Your task to perform on an android device: change the clock display to digital Image 0: 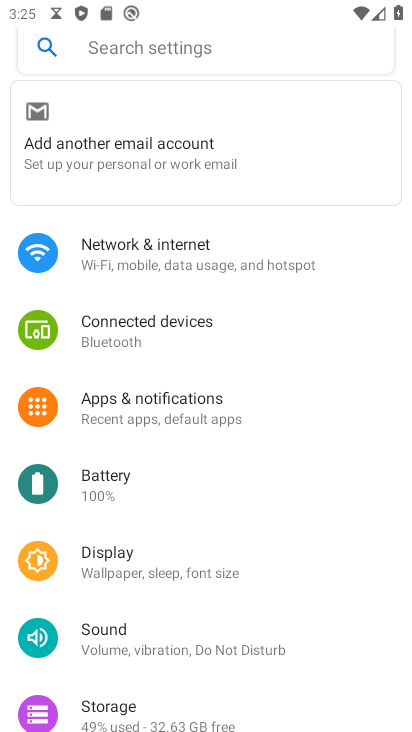
Step 0: press home button
Your task to perform on an android device: change the clock display to digital Image 1: 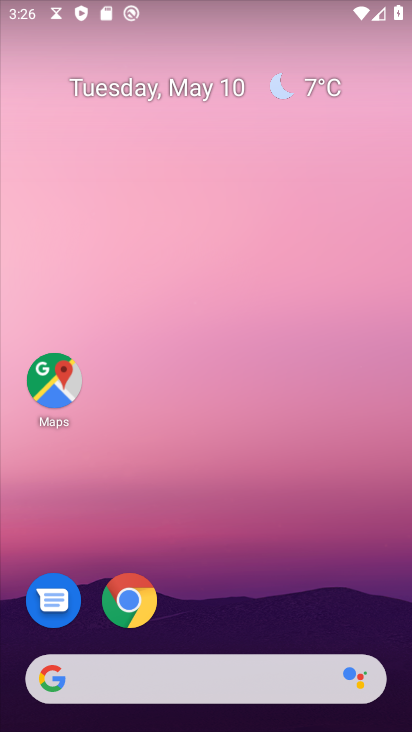
Step 1: click (22, 14)
Your task to perform on an android device: change the clock display to digital Image 2: 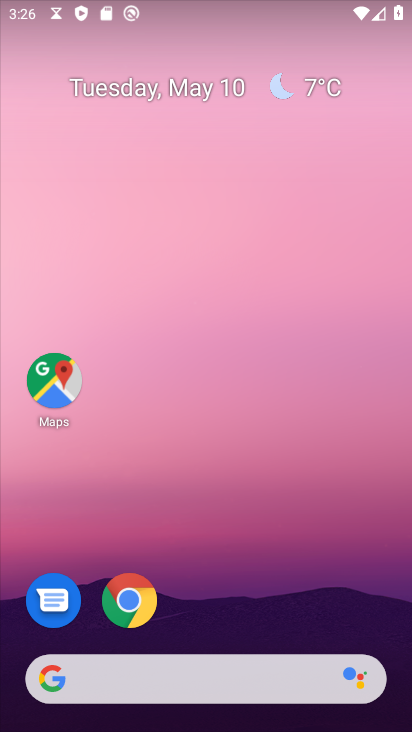
Step 2: click (48, 9)
Your task to perform on an android device: change the clock display to digital Image 3: 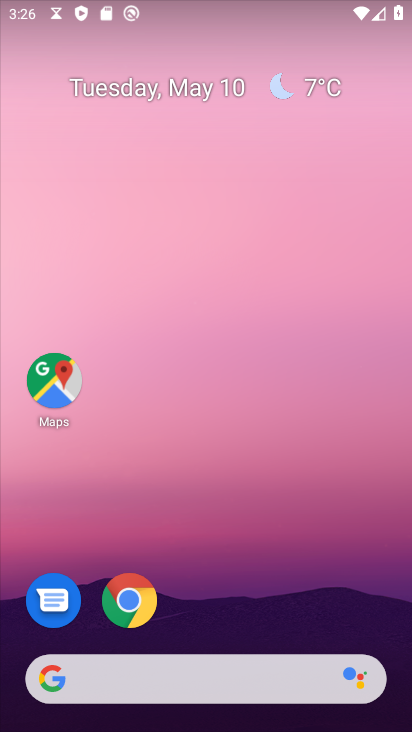
Step 3: task complete